Your task to perform on an android device: turn off location Image 0: 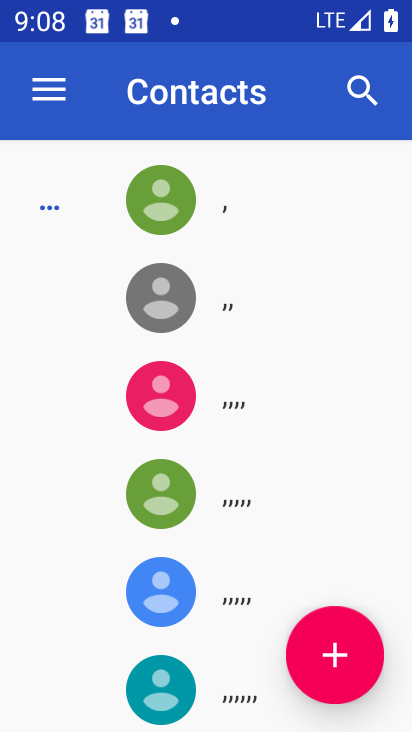
Step 0: press back button
Your task to perform on an android device: turn off location Image 1: 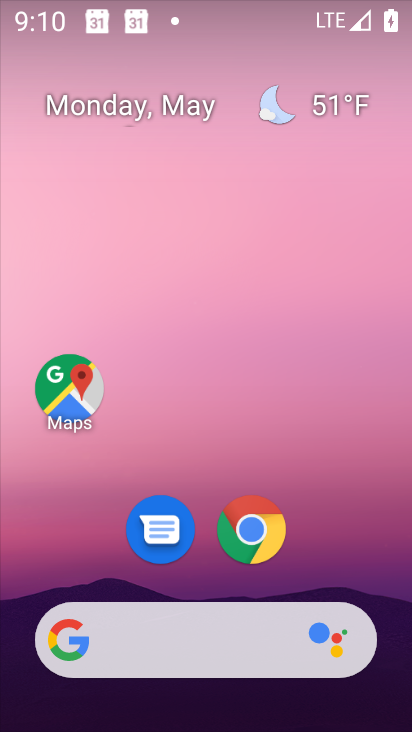
Step 1: drag from (89, 527) to (278, 258)
Your task to perform on an android device: turn off location Image 2: 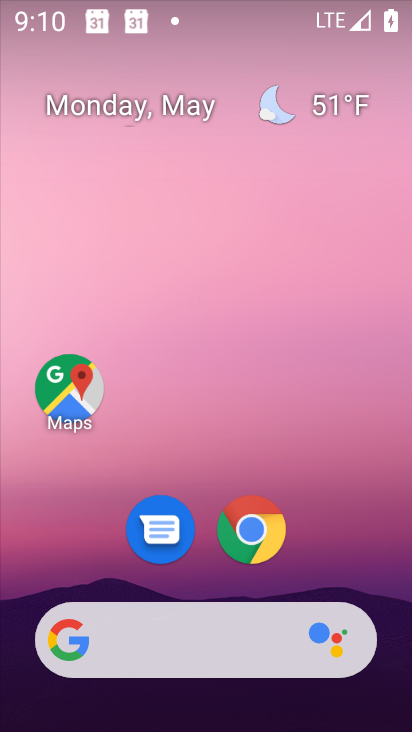
Step 2: drag from (83, 636) to (262, 108)
Your task to perform on an android device: turn off location Image 3: 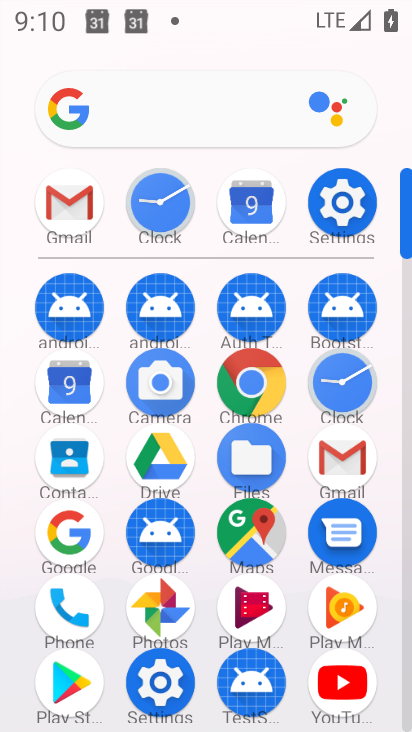
Step 3: click (350, 199)
Your task to perform on an android device: turn off location Image 4: 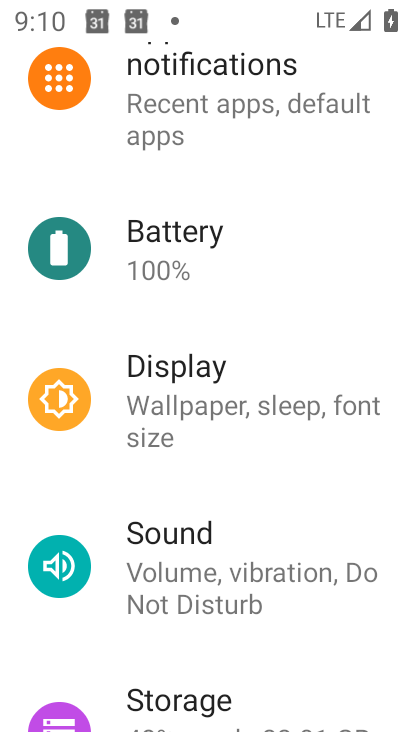
Step 4: drag from (205, 608) to (349, 202)
Your task to perform on an android device: turn off location Image 5: 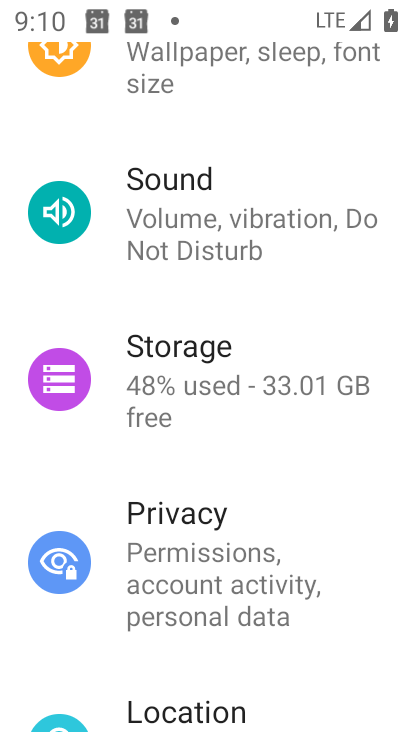
Step 5: click (188, 698)
Your task to perform on an android device: turn off location Image 6: 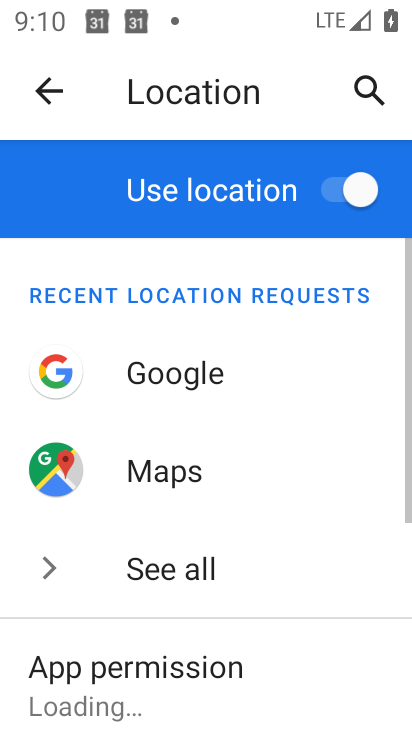
Step 6: click (355, 204)
Your task to perform on an android device: turn off location Image 7: 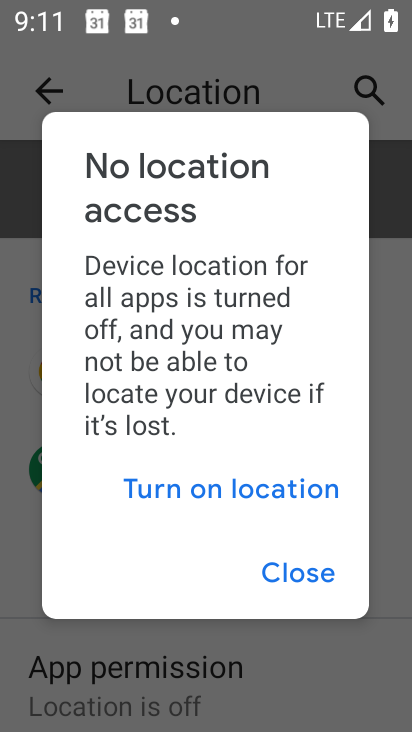
Step 7: click (306, 587)
Your task to perform on an android device: turn off location Image 8: 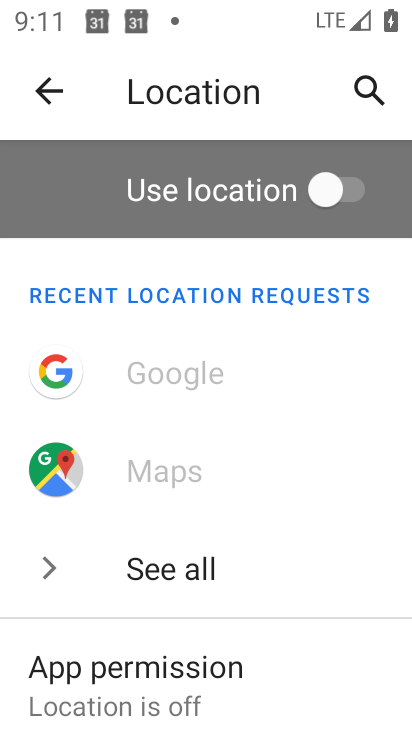
Step 8: task complete